Your task to perform on an android device: Go to battery settings Image 0: 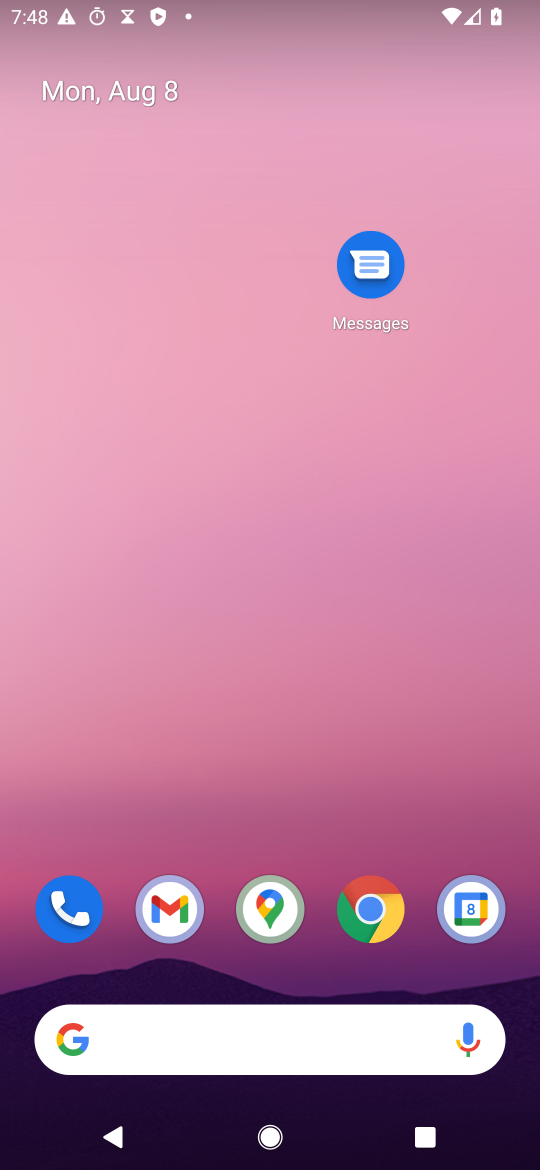
Step 0: press home button
Your task to perform on an android device: Go to battery settings Image 1: 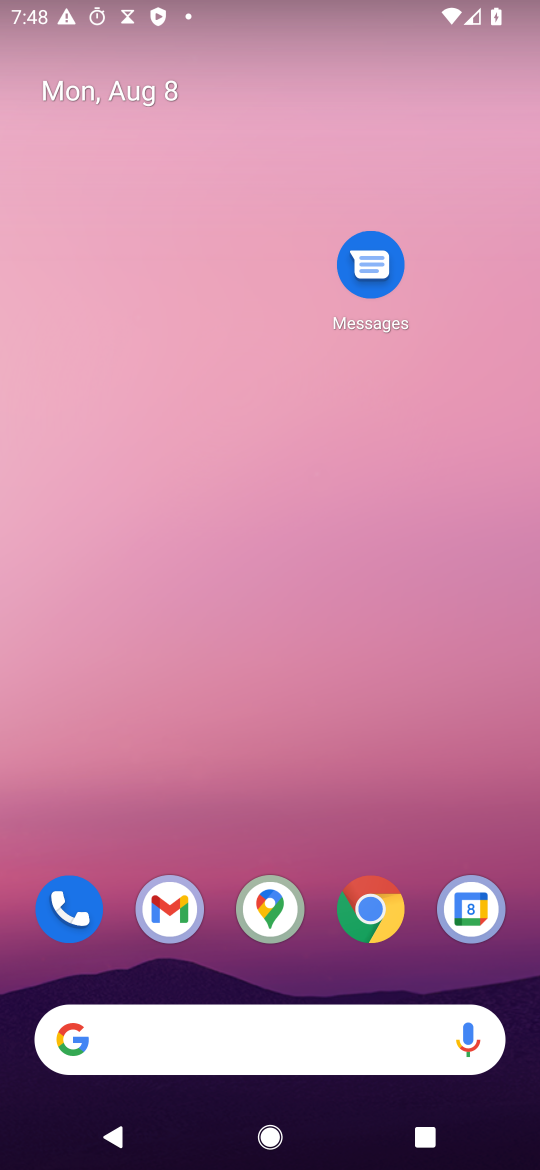
Step 1: drag from (282, 996) to (410, 194)
Your task to perform on an android device: Go to battery settings Image 2: 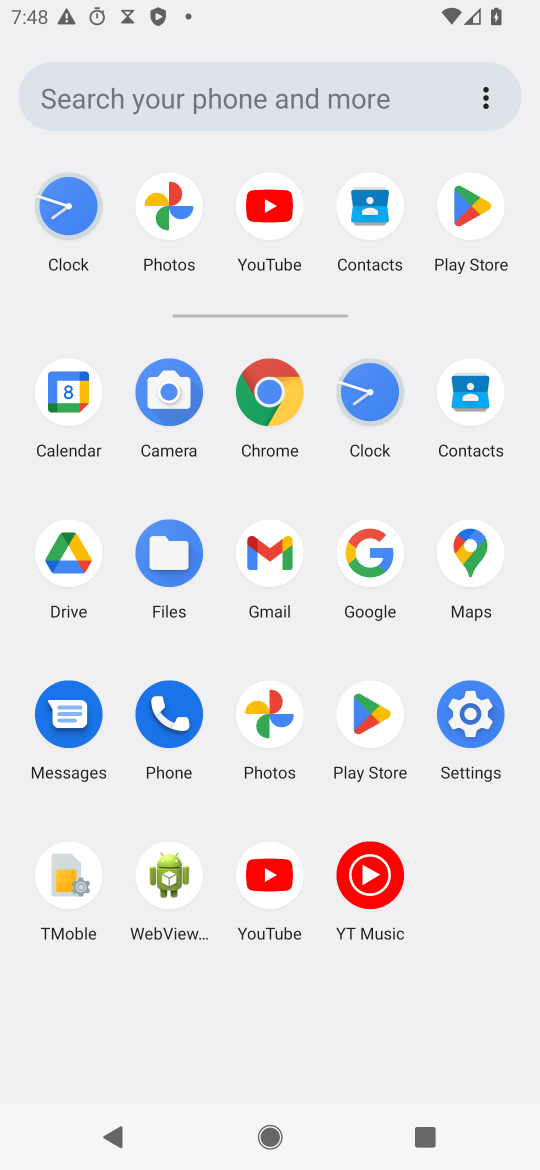
Step 2: click (485, 715)
Your task to perform on an android device: Go to battery settings Image 3: 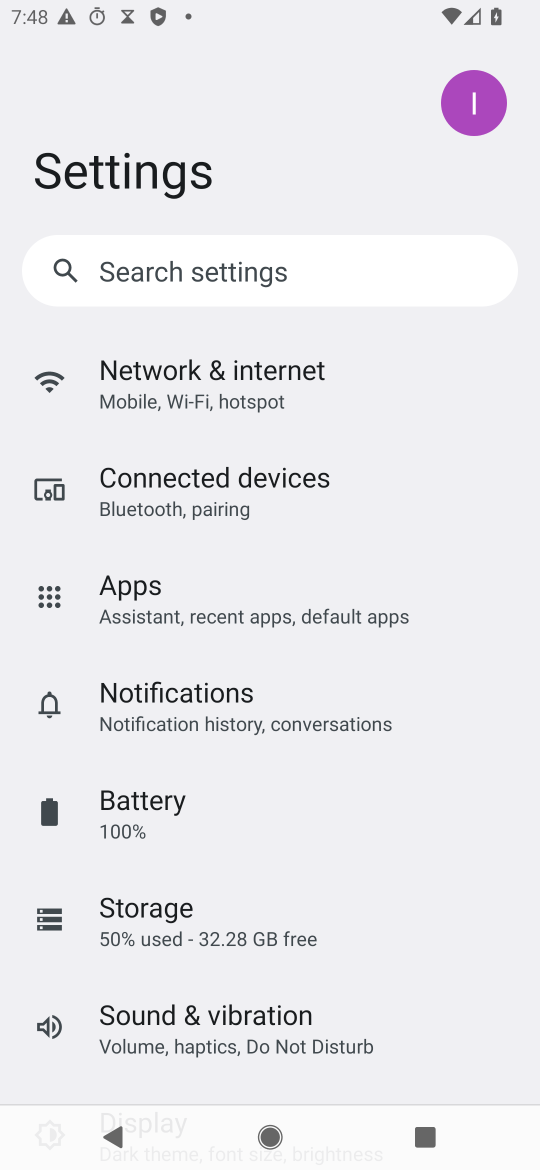
Step 3: click (159, 817)
Your task to perform on an android device: Go to battery settings Image 4: 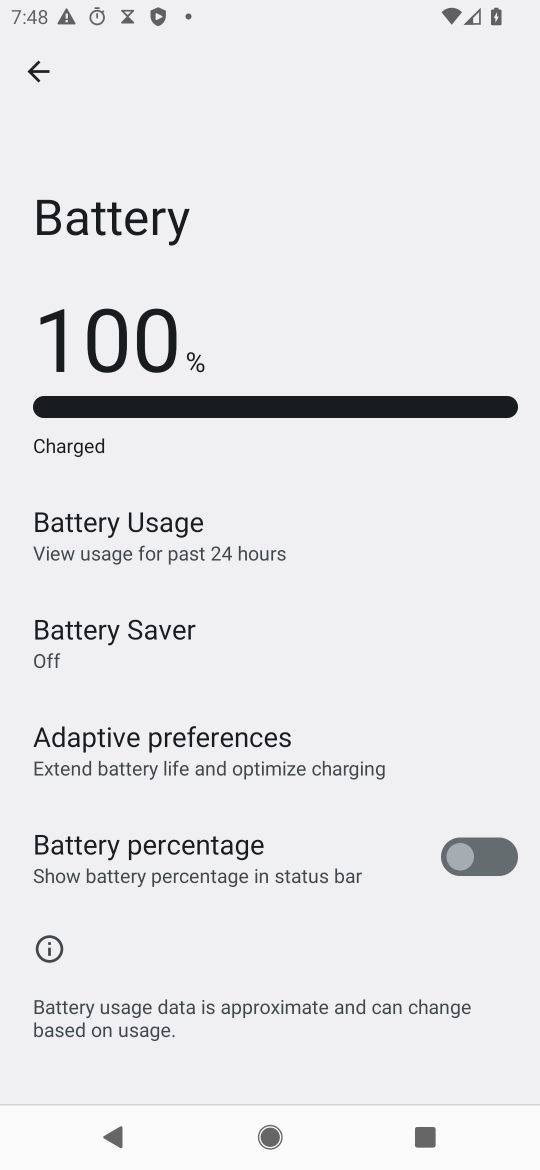
Step 4: task complete